Your task to perform on an android device: toggle show notifications on the lock screen Image 0: 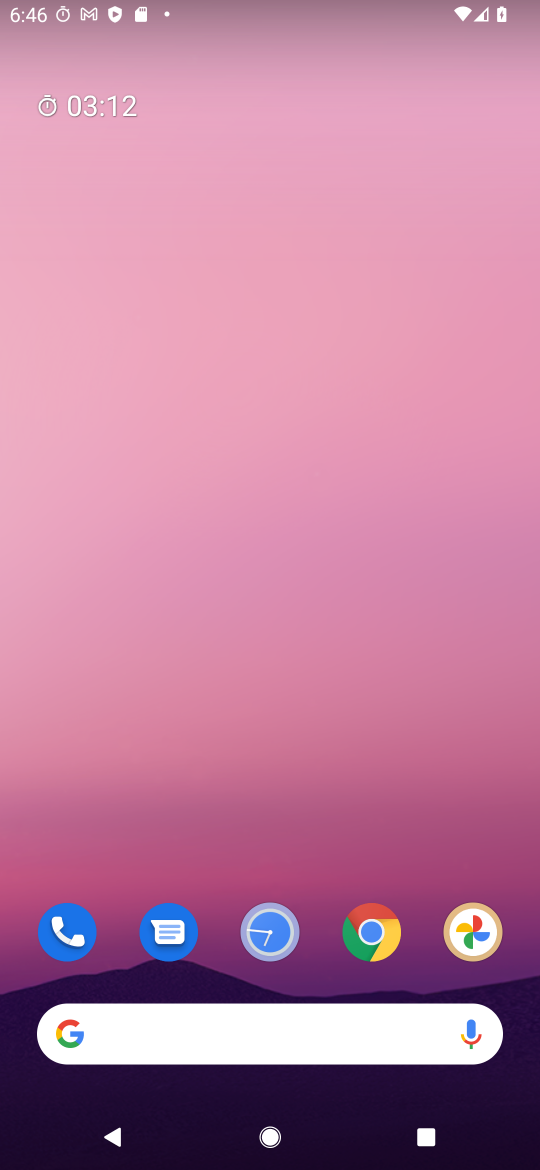
Step 0: drag from (266, 821) to (394, 83)
Your task to perform on an android device: toggle show notifications on the lock screen Image 1: 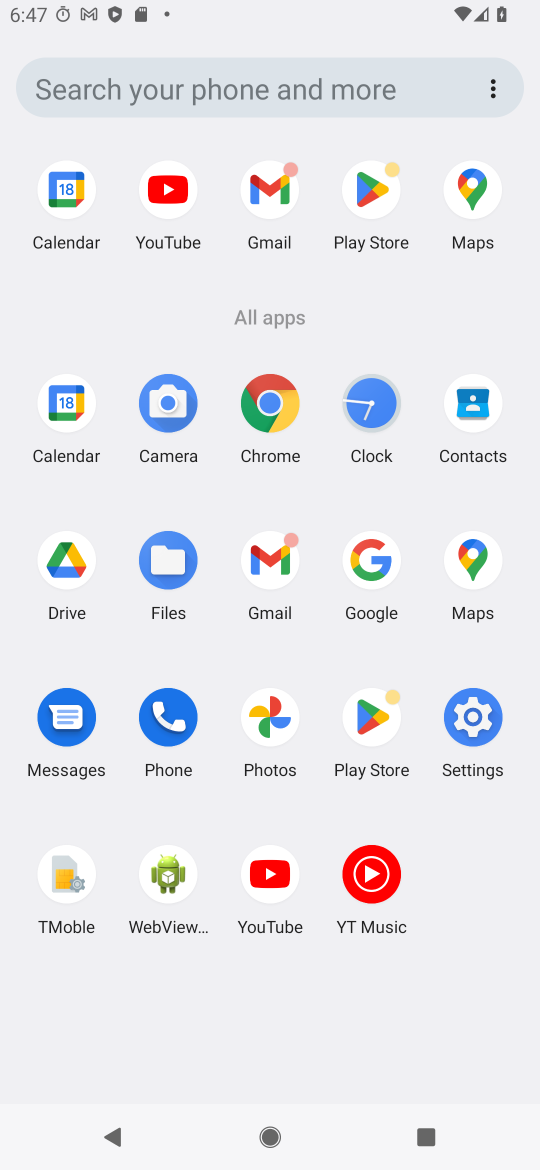
Step 1: click (475, 716)
Your task to perform on an android device: toggle show notifications on the lock screen Image 2: 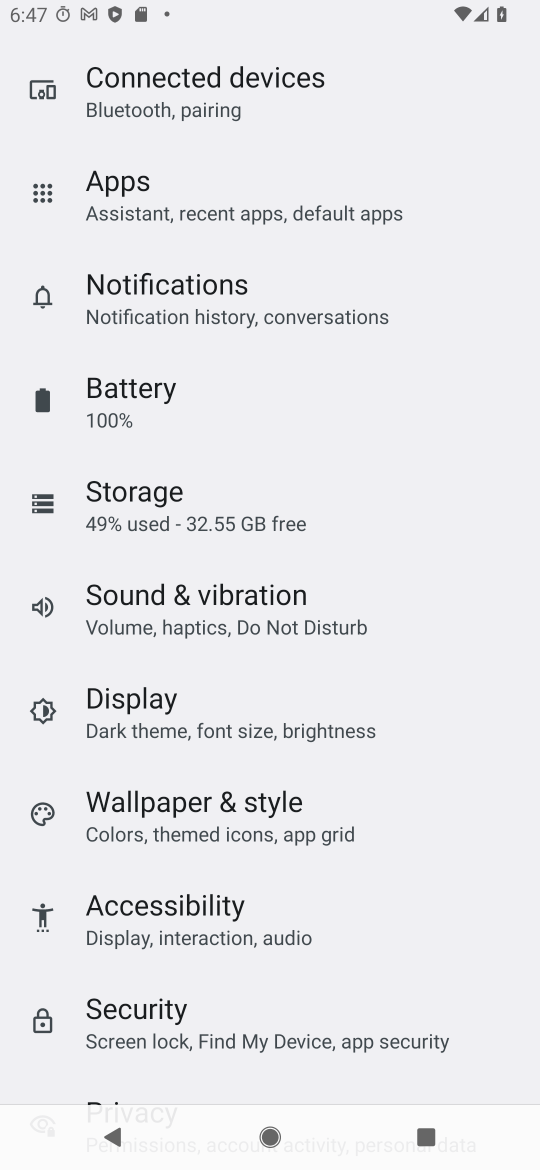
Step 2: click (91, 300)
Your task to perform on an android device: toggle show notifications on the lock screen Image 3: 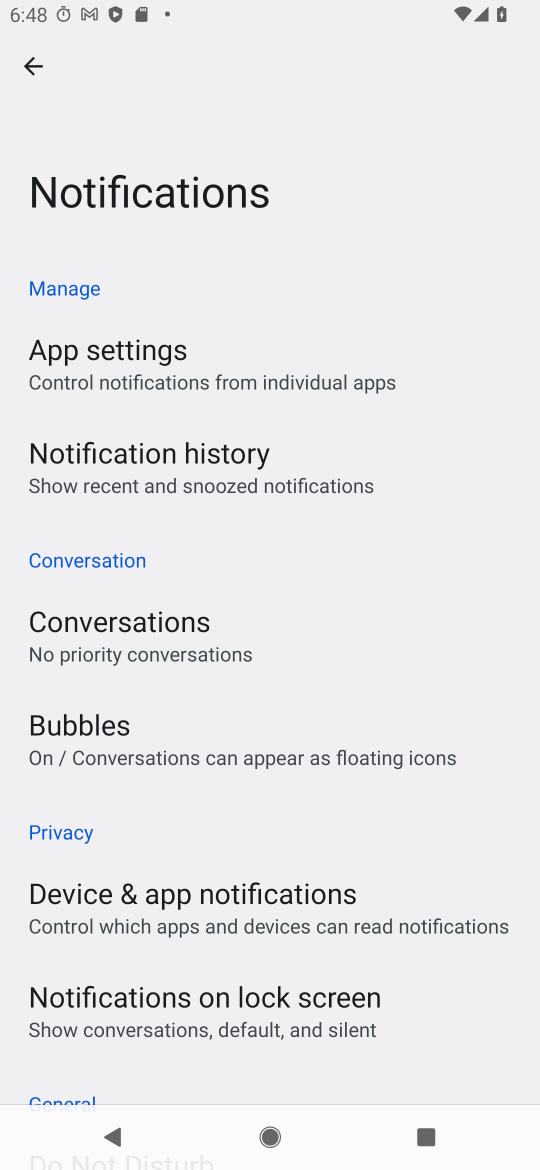
Step 3: drag from (230, 857) to (344, 294)
Your task to perform on an android device: toggle show notifications on the lock screen Image 4: 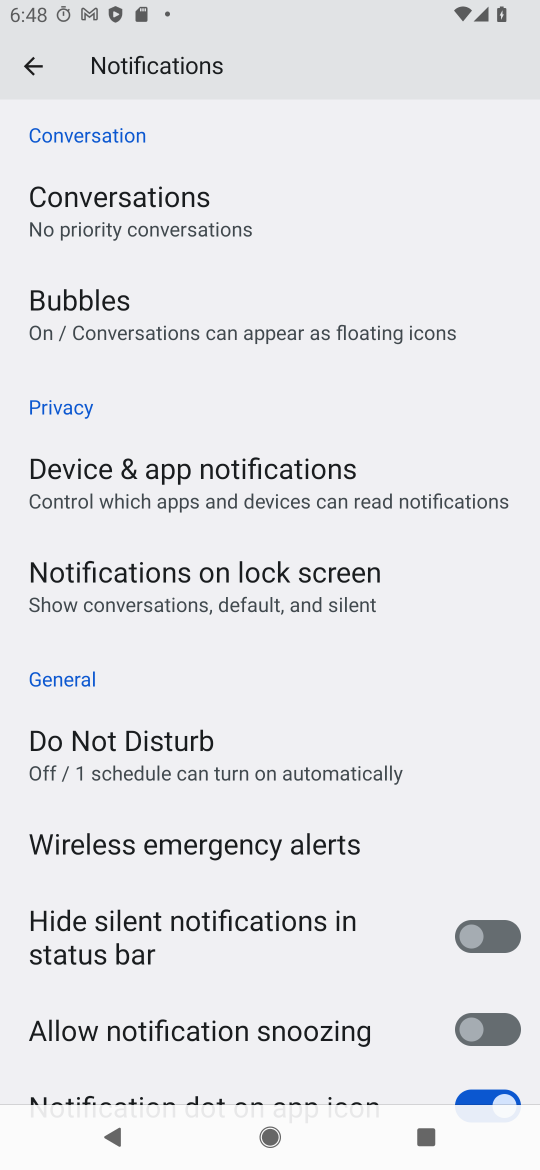
Step 4: click (95, 581)
Your task to perform on an android device: toggle show notifications on the lock screen Image 5: 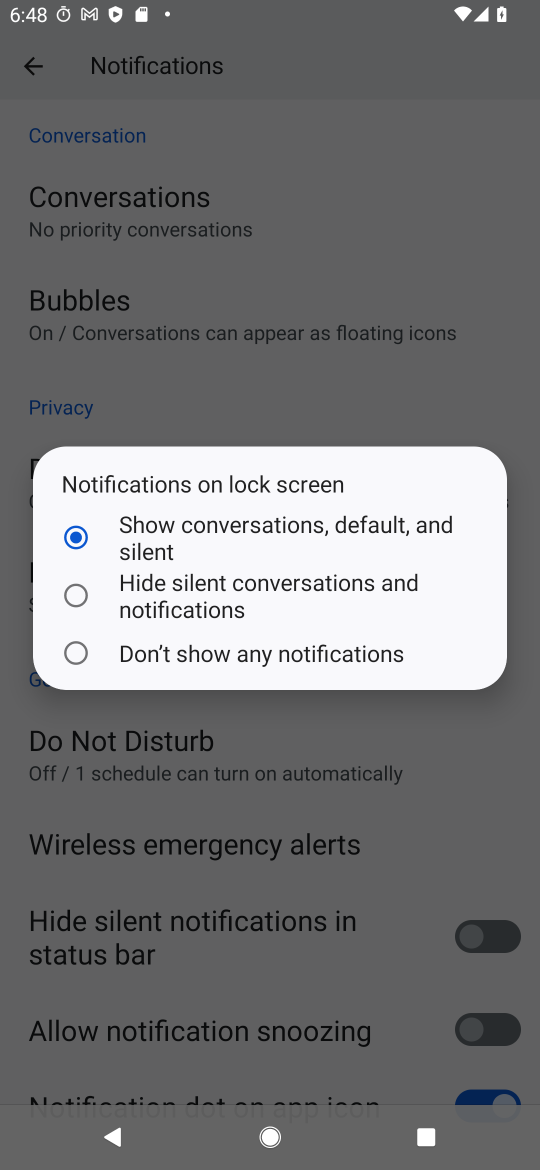
Step 5: click (80, 647)
Your task to perform on an android device: toggle show notifications on the lock screen Image 6: 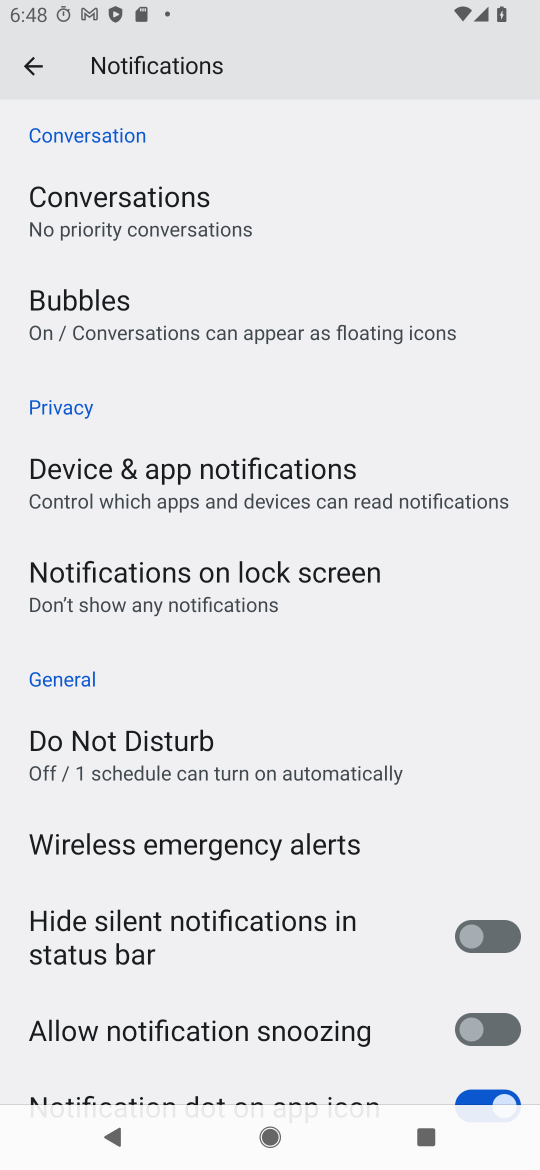
Step 6: task complete